Your task to perform on an android device: Open maps Image 0: 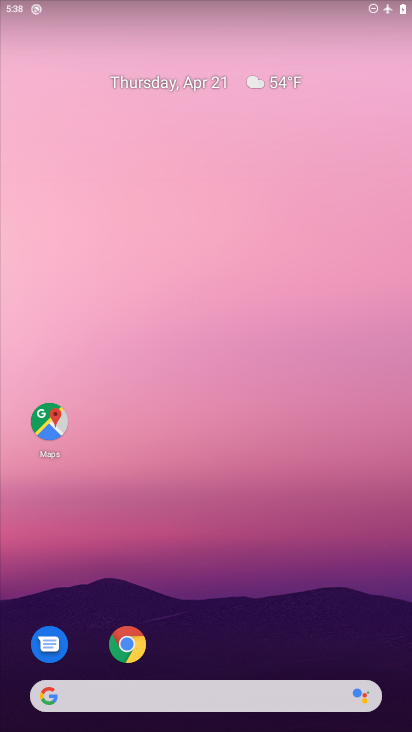
Step 0: click (51, 421)
Your task to perform on an android device: Open maps Image 1: 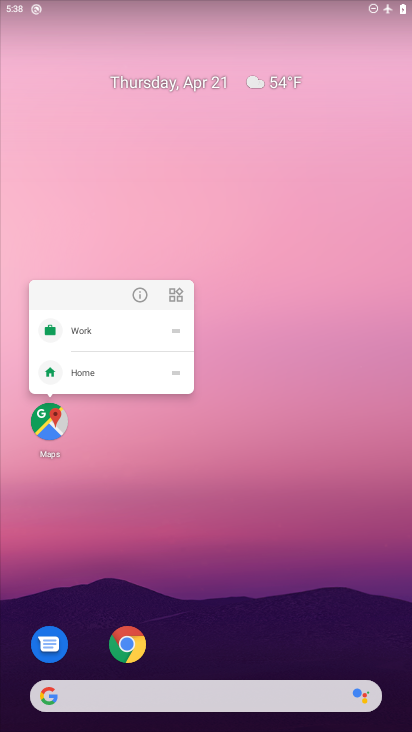
Step 1: click (51, 421)
Your task to perform on an android device: Open maps Image 2: 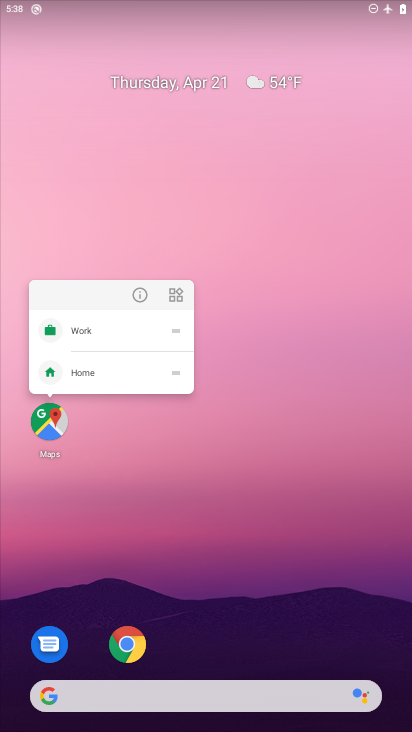
Step 2: click (51, 421)
Your task to perform on an android device: Open maps Image 3: 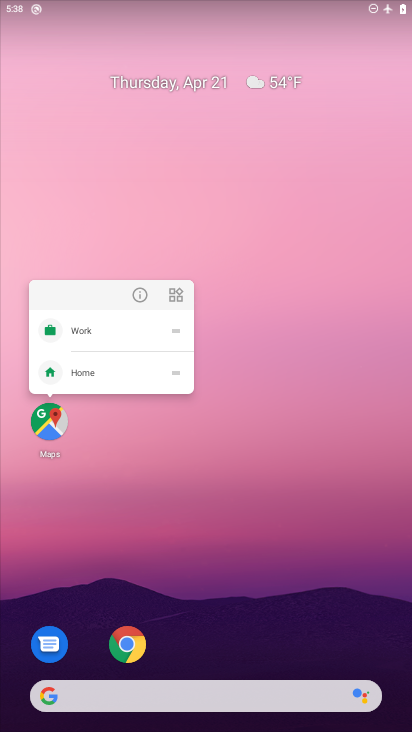
Step 3: click (51, 421)
Your task to perform on an android device: Open maps Image 4: 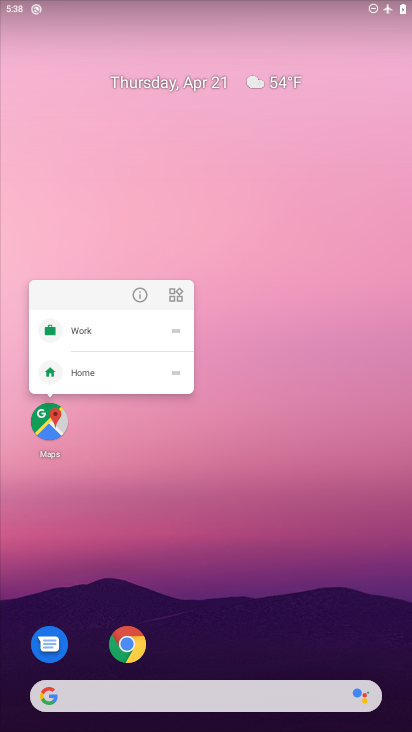
Step 4: click (48, 425)
Your task to perform on an android device: Open maps Image 5: 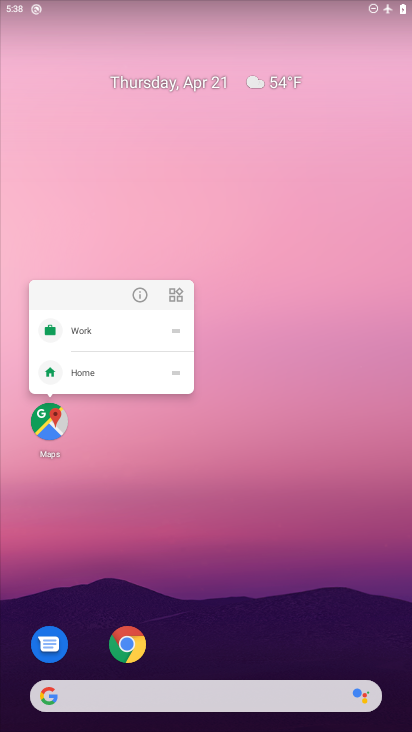
Step 5: click (48, 425)
Your task to perform on an android device: Open maps Image 6: 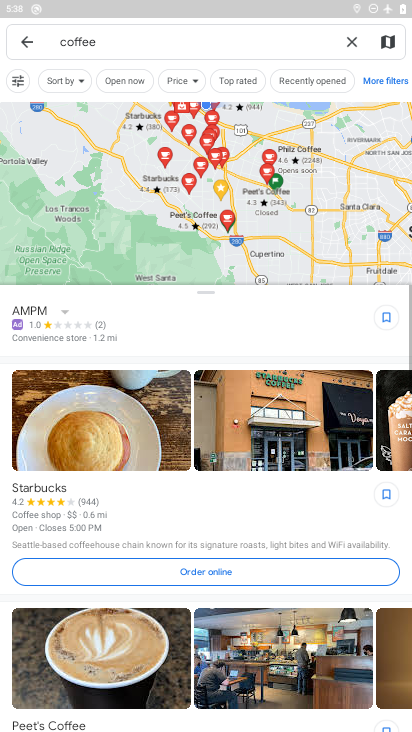
Step 6: click (355, 38)
Your task to perform on an android device: Open maps Image 7: 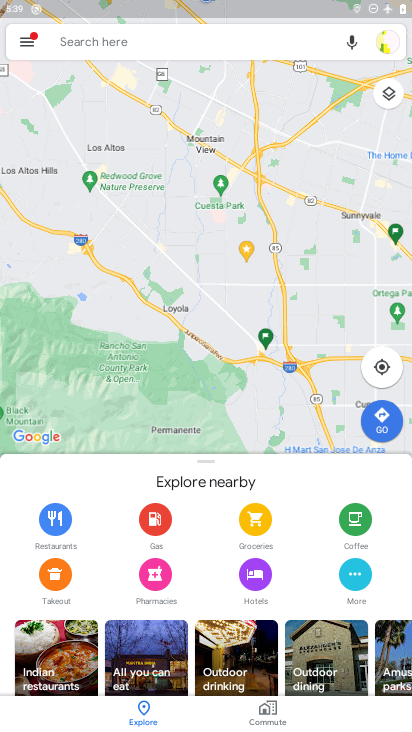
Step 7: task complete